Your task to perform on an android device: Show me popular videos on Youtube Image 0: 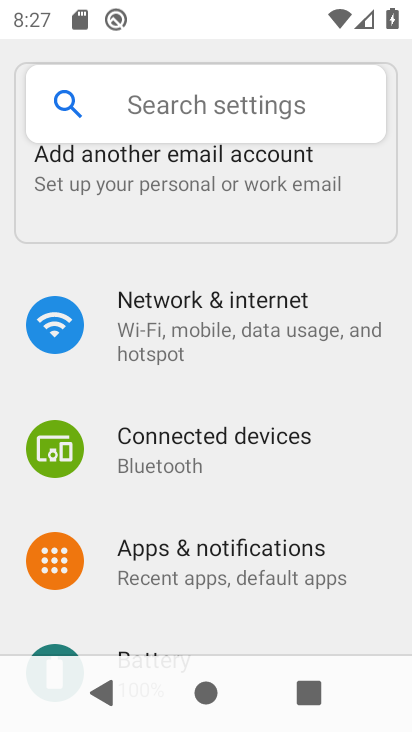
Step 0: press home button
Your task to perform on an android device: Show me popular videos on Youtube Image 1: 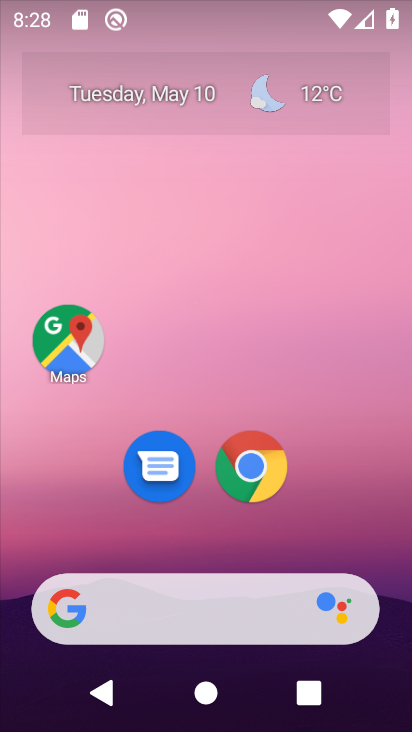
Step 1: drag from (249, 558) to (300, 0)
Your task to perform on an android device: Show me popular videos on Youtube Image 2: 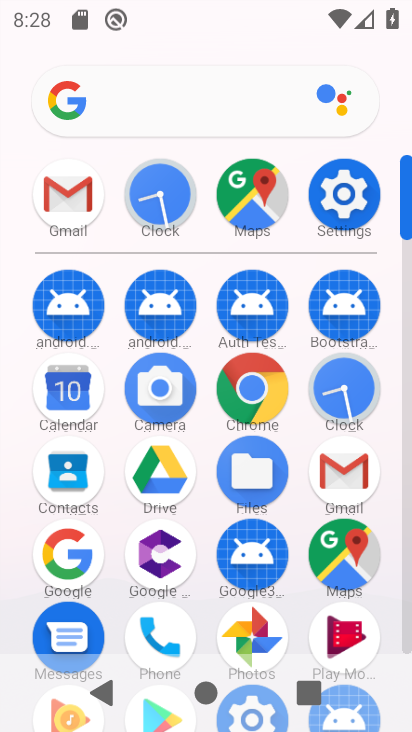
Step 2: drag from (210, 534) to (237, 48)
Your task to perform on an android device: Show me popular videos on Youtube Image 3: 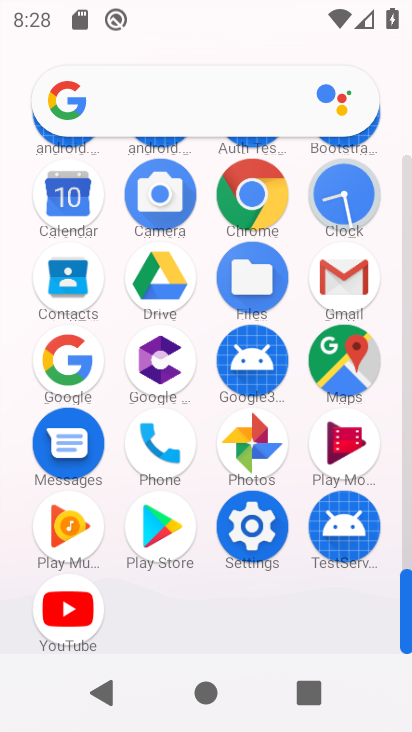
Step 3: click (48, 616)
Your task to perform on an android device: Show me popular videos on Youtube Image 4: 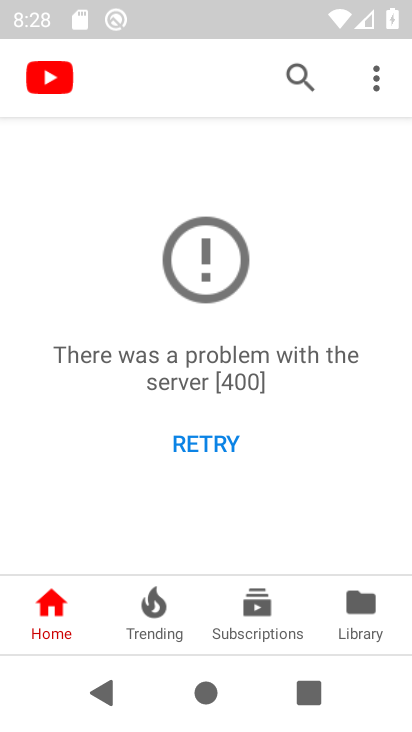
Step 4: click (202, 433)
Your task to perform on an android device: Show me popular videos on Youtube Image 5: 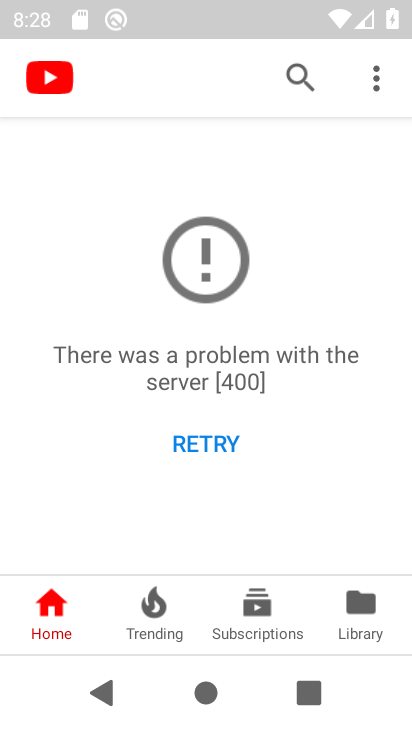
Step 5: click (180, 455)
Your task to perform on an android device: Show me popular videos on Youtube Image 6: 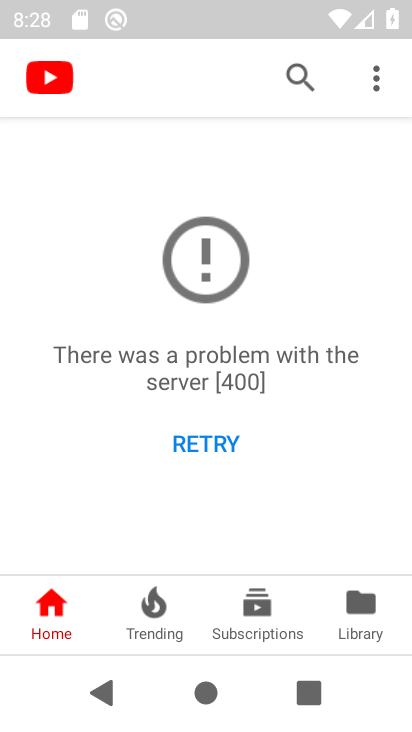
Step 6: task complete